Your task to perform on an android device: Go to network settings Image 0: 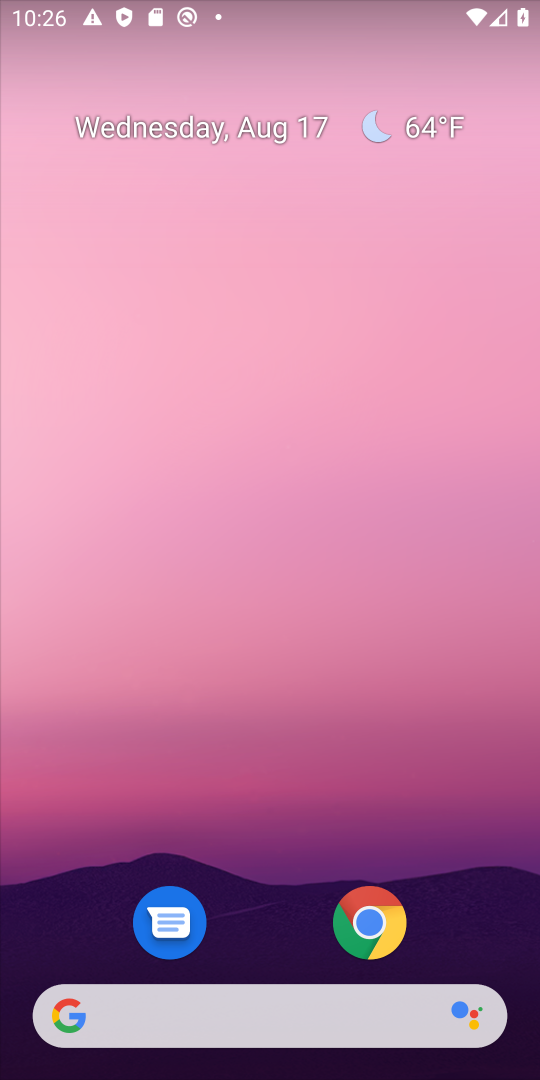
Step 0: drag from (254, 933) to (300, 173)
Your task to perform on an android device: Go to network settings Image 1: 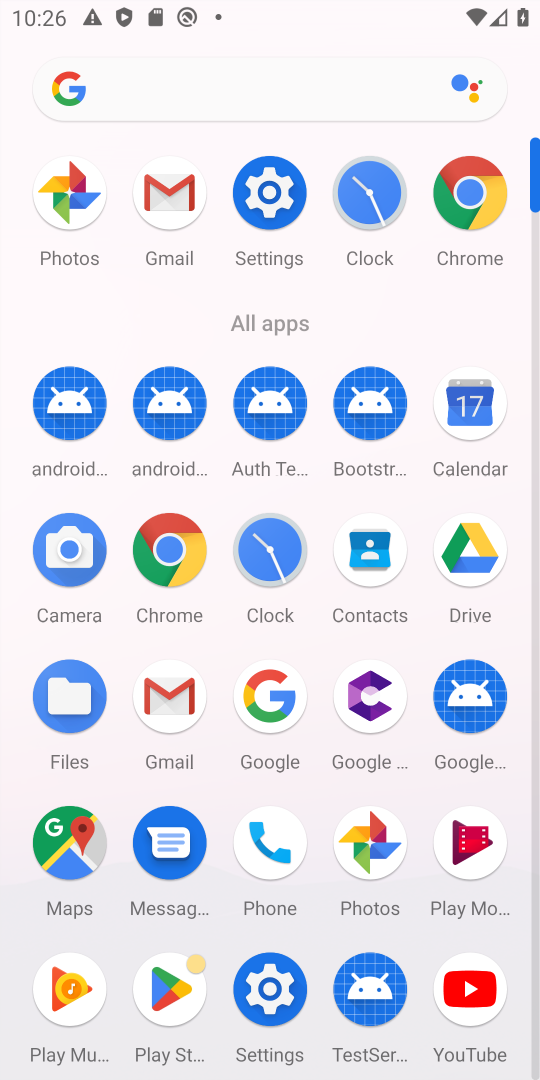
Step 1: click (259, 970)
Your task to perform on an android device: Go to network settings Image 2: 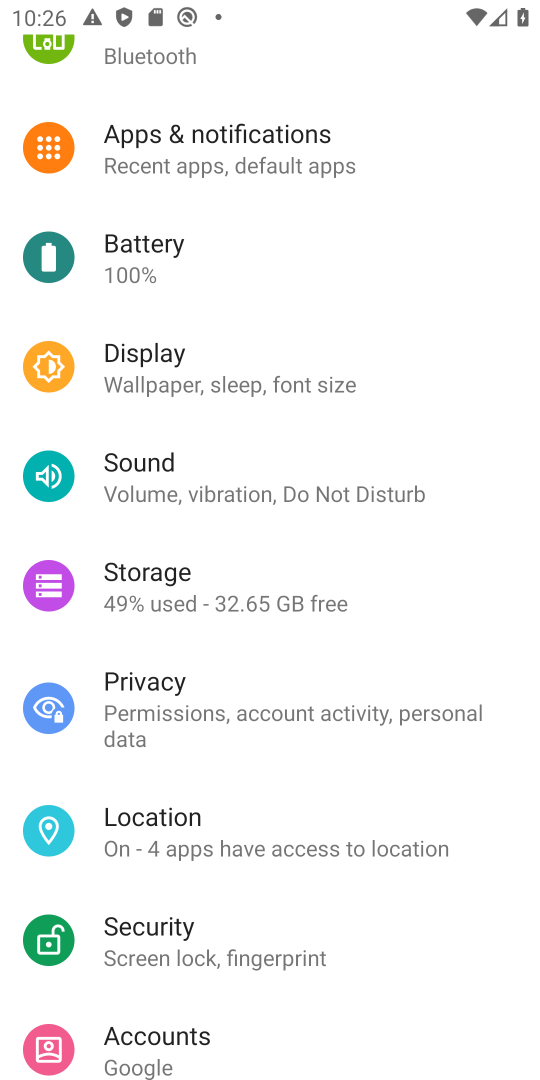
Step 2: drag from (305, 250) to (347, 1021)
Your task to perform on an android device: Go to network settings Image 3: 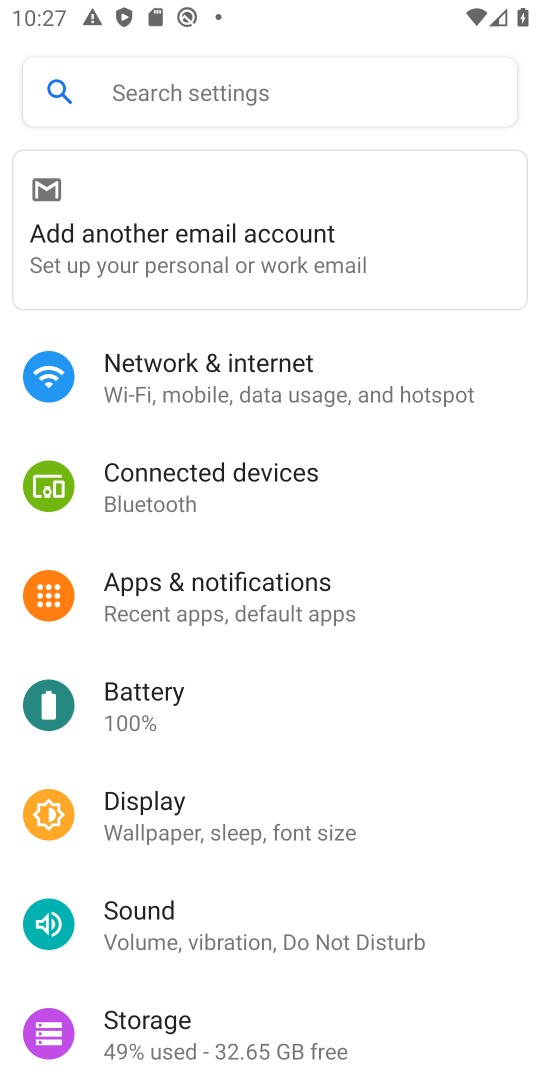
Step 3: click (208, 397)
Your task to perform on an android device: Go to network settings Image 4: 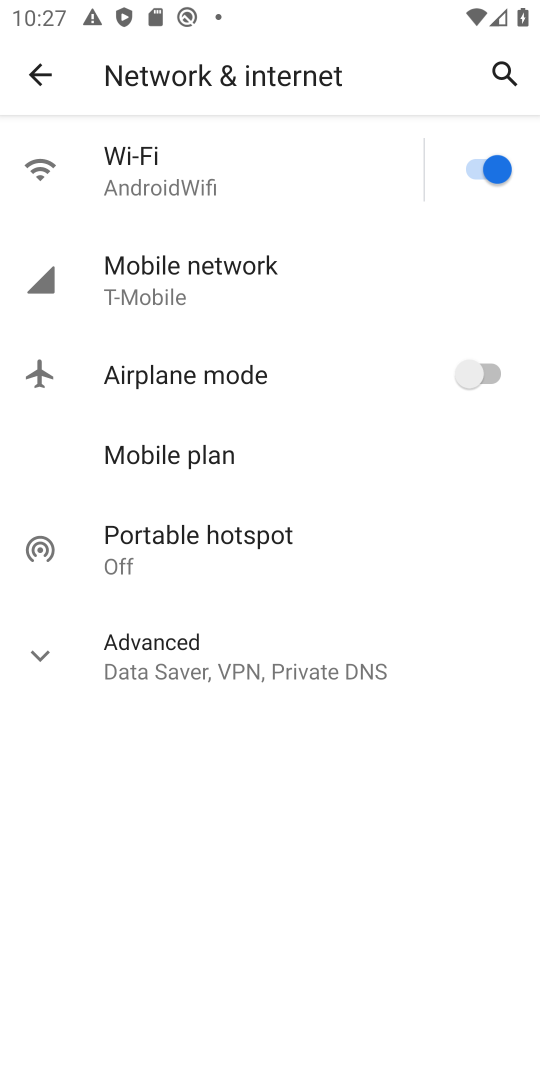
Step 4: task complete